Your task to perform on an android device: snooze an email in the gmail app Image 0: 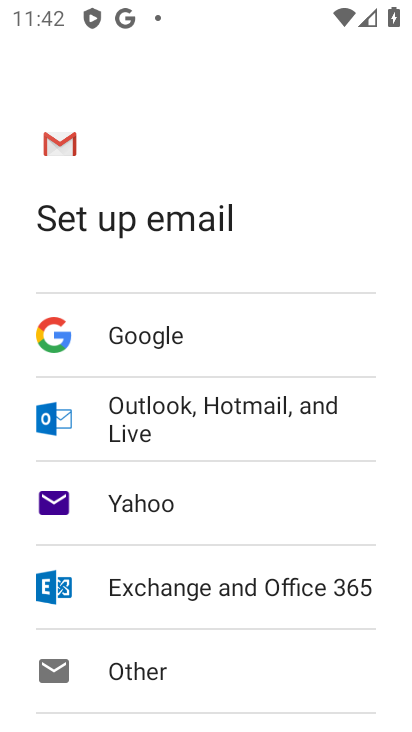
Step 0: press home button
Your task to perform on an android device: snooze an email in the gmail app Image 1: 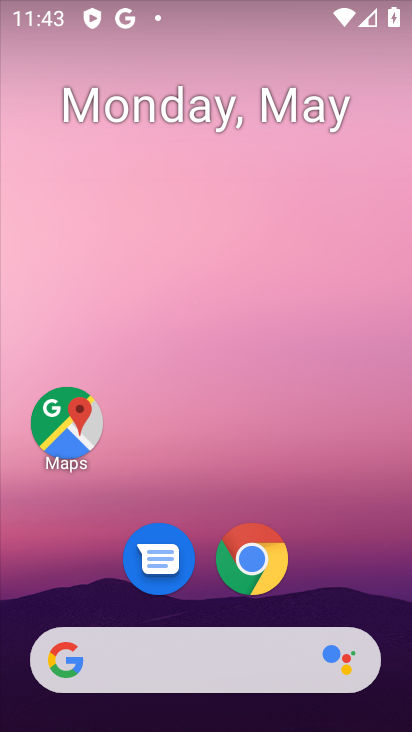
Step 1: drag from (386, 599) to (288, 8)
Your task to perform on an android device: snooze an email in the gmail app Image 2: 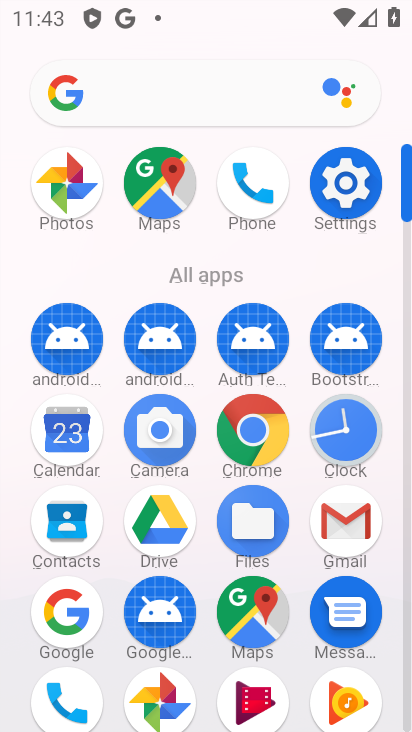
Step 2: click (357, 524)
Your task to perform on an android device: snooze an email in the gmail app Image 3: 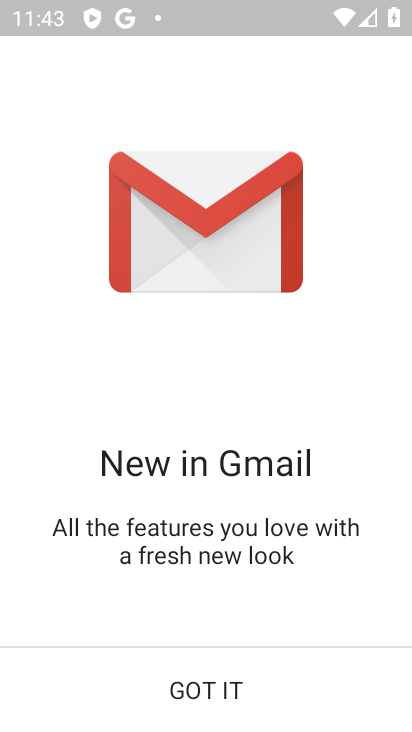
Step 3: click (220, 702)
Your task to perform on an android device: snooze an email in the gmail app Image 4: 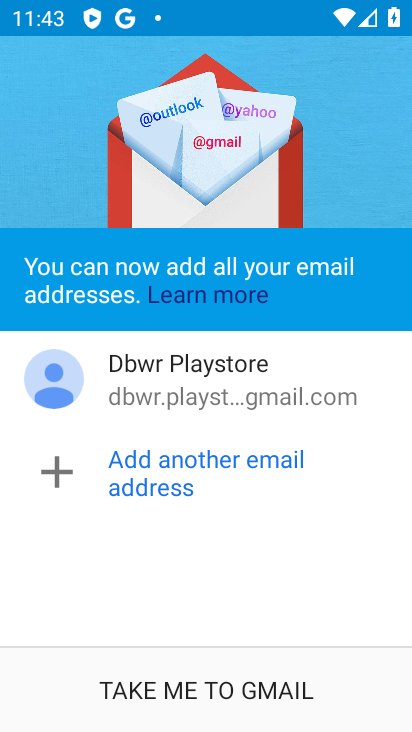
Step 4: click (220, 702)
Your task to perform on an android device: snooze an email in the gmail app Image 5: 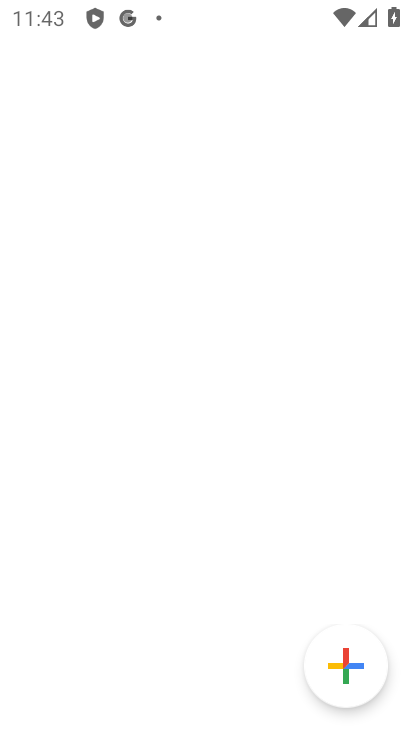
Step 5: click (220, 702)
Your task to perform on an android device: snooze an email in the gmail app Image 6: 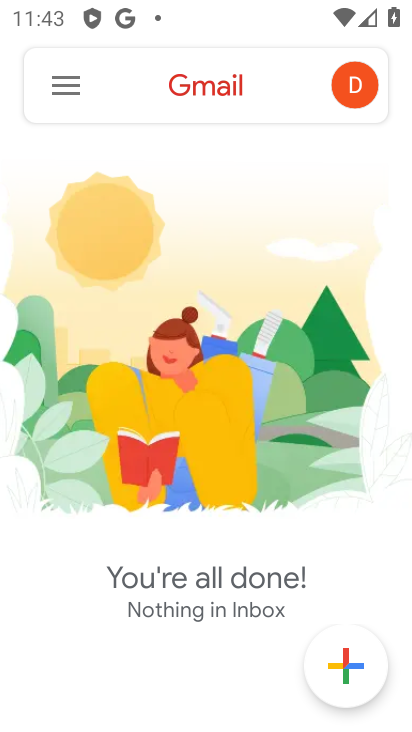
Step 6: click (71, 83)
Your task to perform on an android device: snooze an email in the gmail app Image 7: 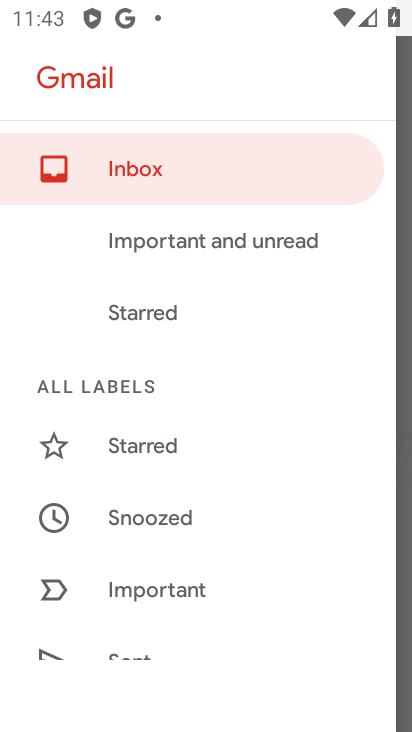
Step 7: drag from (220, 612) to (228, 181)
Your task to perform on an android device: snooze an email in the gmail app Image 8: 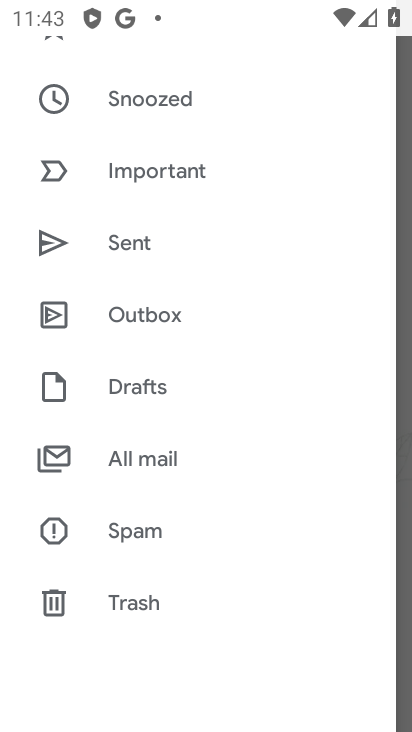
Step 8: click (231, 471)
Your task to perform on an android device: snooze an email in the gmail app Image 9: 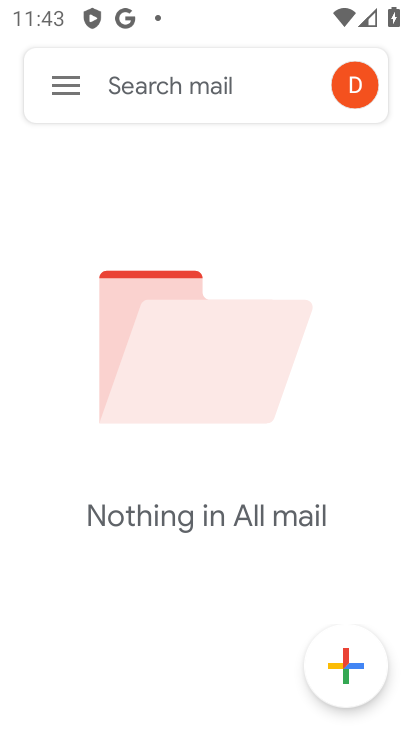
Step 9: task complete